Your task to perform on an android device: choose inbox layout in the gmail app Image 0: 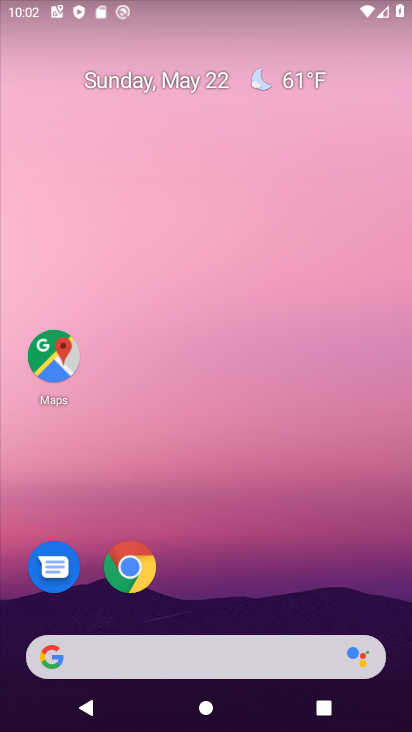
Step 0: drag from (242, 626) to (256, 49)
Your task to perform on an android device: choose inbox layout in the gmail app Image 1: 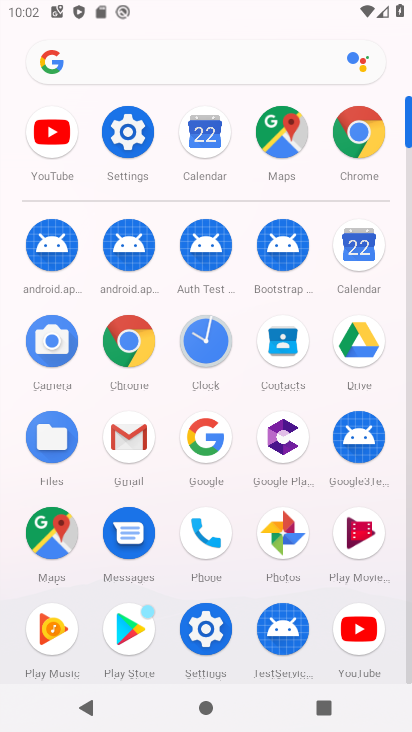
Step 1: click (141, 453)
Your task to perform on an android device: choose inbox layout in the gmail app Image 2: 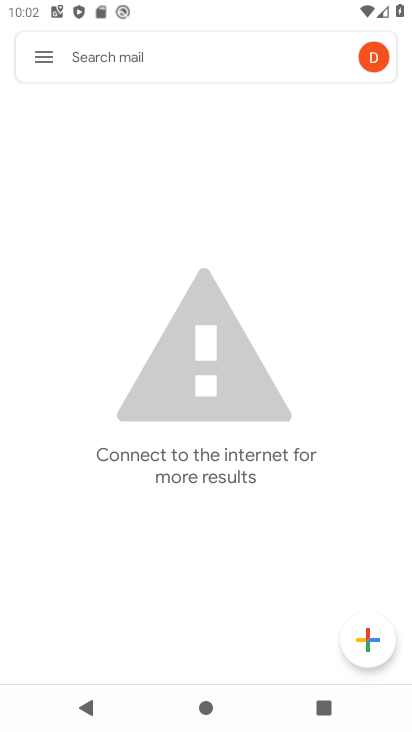
Step 2: click (36, 47)
Your task to perform on an android device: choose inbox layout in the gmail app Image 3: 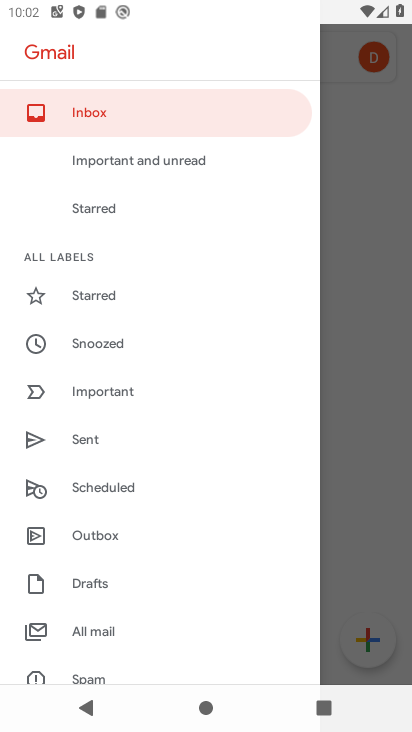
Step 3: click (73, 119)
Your task to perform on an android device: choose inbox layout in the gmail app Image 4: 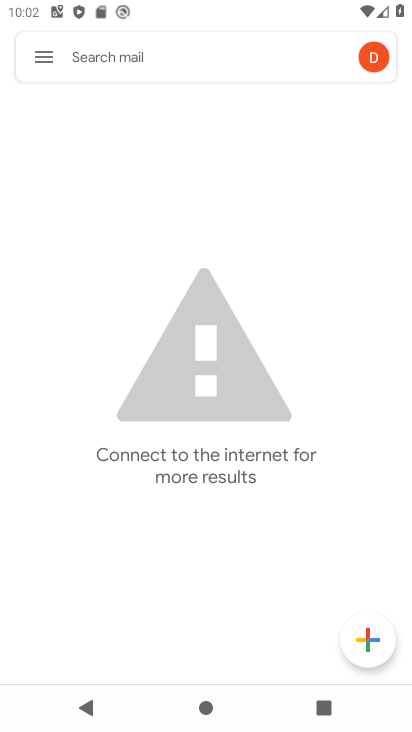
Step 4: task complete